Your task to perform on an android device: Play the last video I watched on Youtube Image 0: 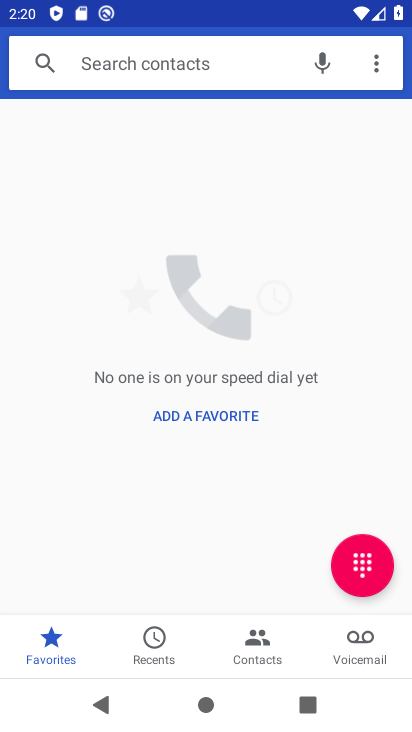
Step 0: press home button
Your task to perform on an android device: Play the last video I watched on Youtube Image 1: 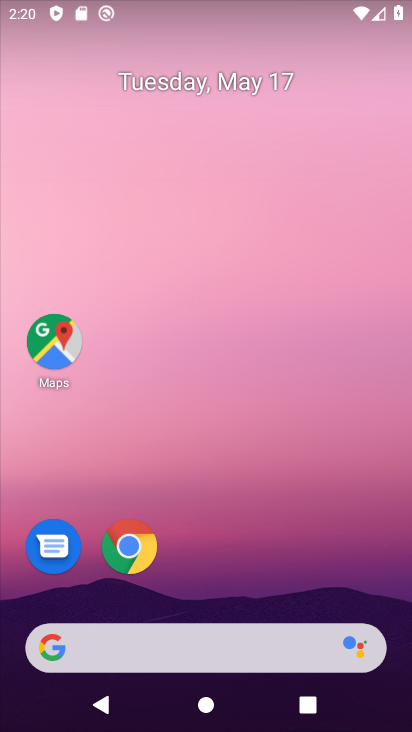
Step 1: drag from (216, 571) to (261, 9)
Your task to perform on an android device: Play the last video I watched on Youtube Image 2: 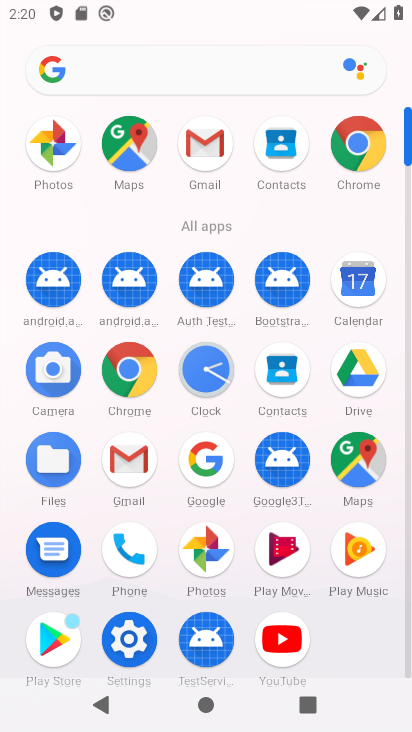
Step 2: click (284, 642)
Your task to perform on an android device: Play the last video I watched on Youtube Image 3: 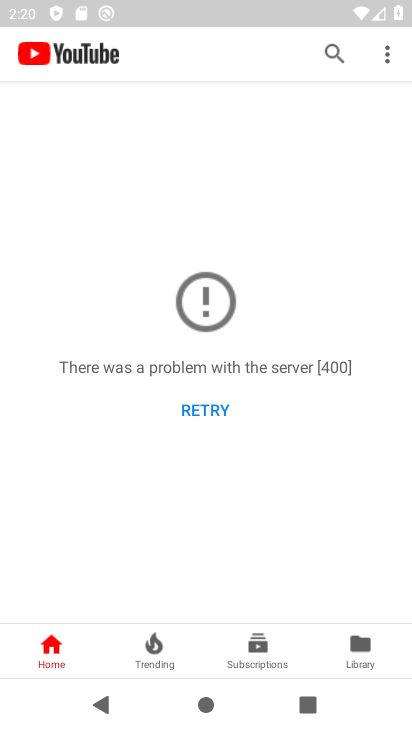
Step 3: click (210, 392)
Your task to perform on an android device: Play the last video I watched on Youtube Image 4: 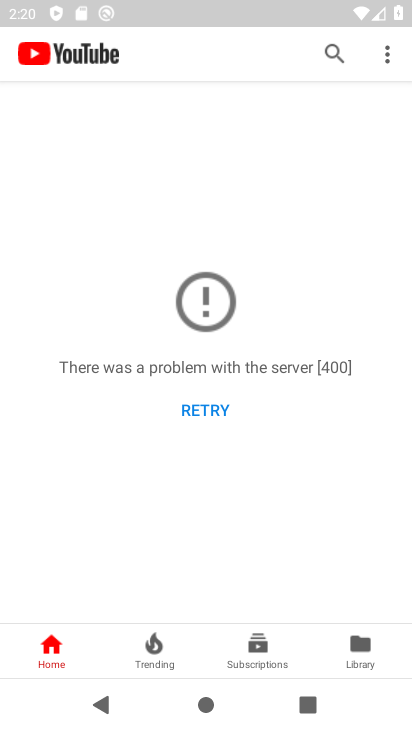
Step 4: click (211, 397)
Your task to perform on an android device: Play the last video I watched on Youtube Image 5: 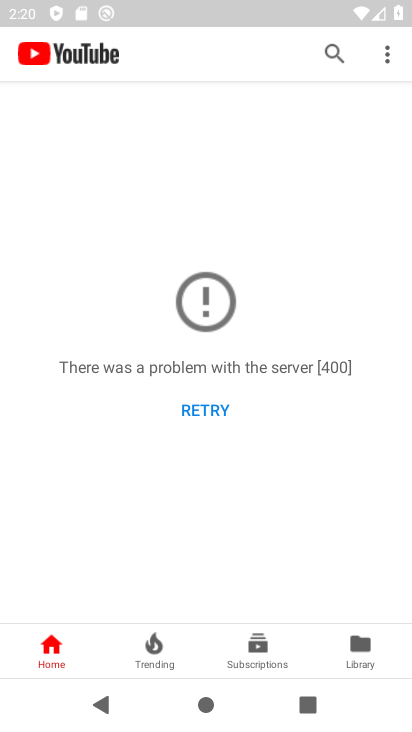
Step 5: click (211, 398)
Your task to perform on an android device: Play the last video I watched on Youtube Image 6: 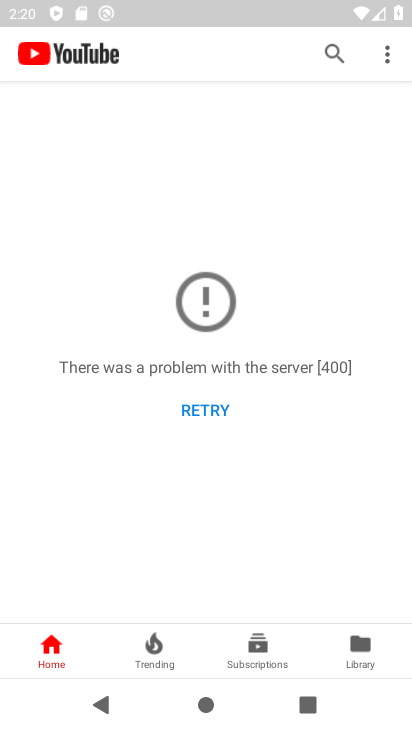
Step 6: click (211, 400)
Your task to perform on an android device: Play the last video I watched on Youtube Image 7: 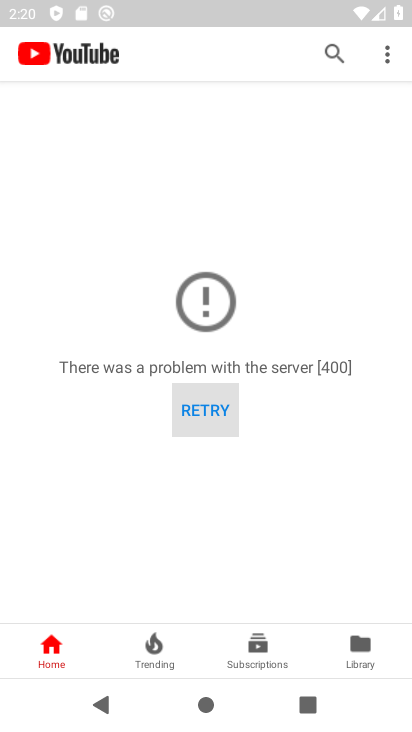
Step 7: click (210, 399)
Your task to perform on an android device: Play the last video I watched on Youtube Image 8: 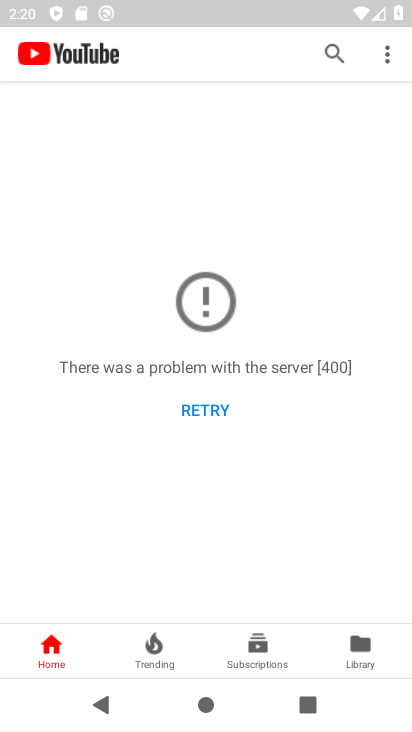
Step 8: click (366, 642)
Your task to perform on an android device: Play the last video I watched on Youtube Image 9: 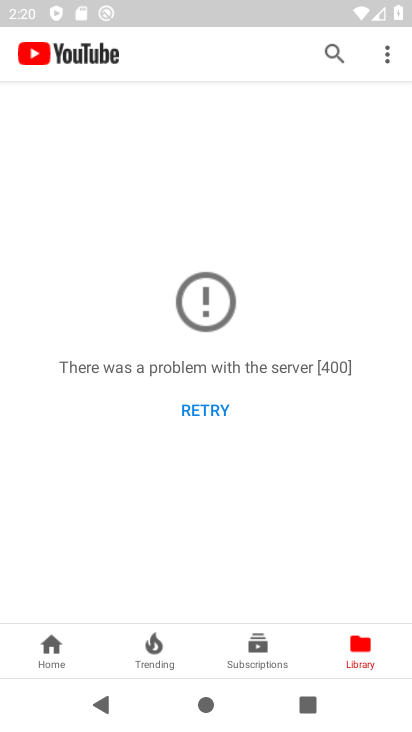
Step 9: task complete